Your task to perform on an android device: Open Google Chrome Image 0: 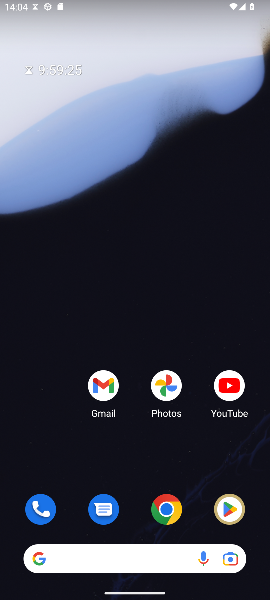
Step 0: press home button
Your task to perform on an android device: Open Google Chrome Image 1: 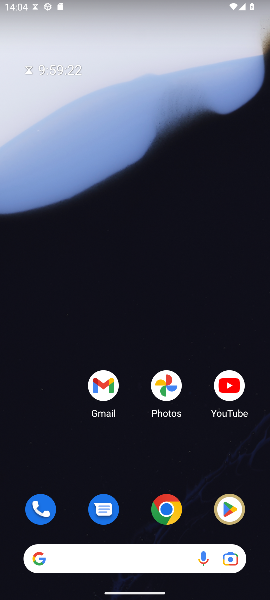
Step 1: drag from (151, 506) to (158, 206)
Your task to perform on an android device: Open Google Chrome Image 2: 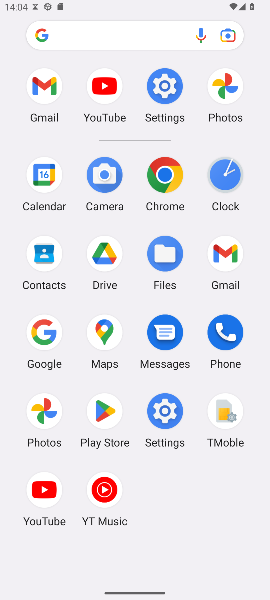
Step 2: click (163, 170)
Your task to perform on an android device: Open Google Chrome Image 3: 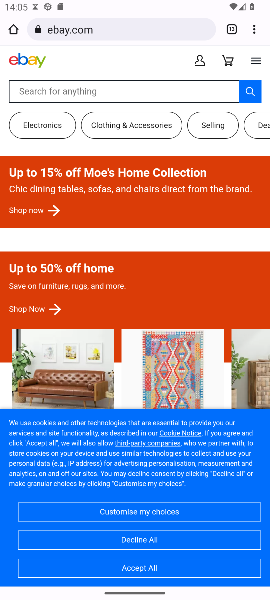
Step 3: task complete